Your task to perform on an android device: toggle location history Image 0: 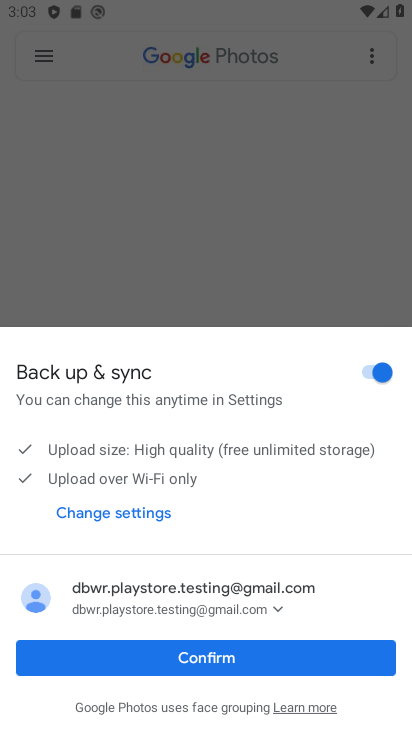
Step 0: press home button
Your task to perform on an android device: toggle location history Image 1: 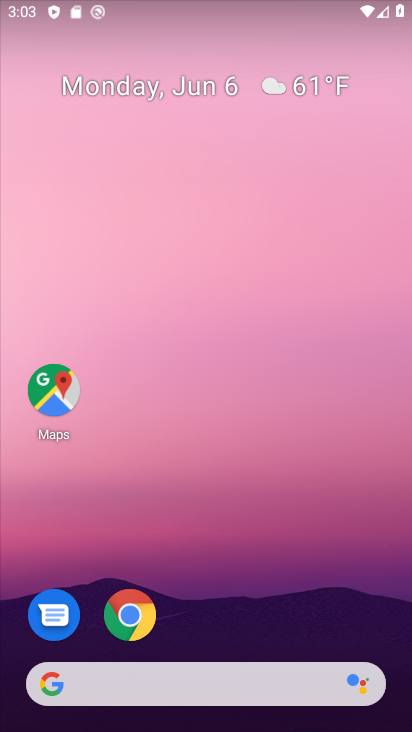
Step 1: drag from (197, 651) to (398, 337)
Your task to perform on an android device: toggle location history Image 2: 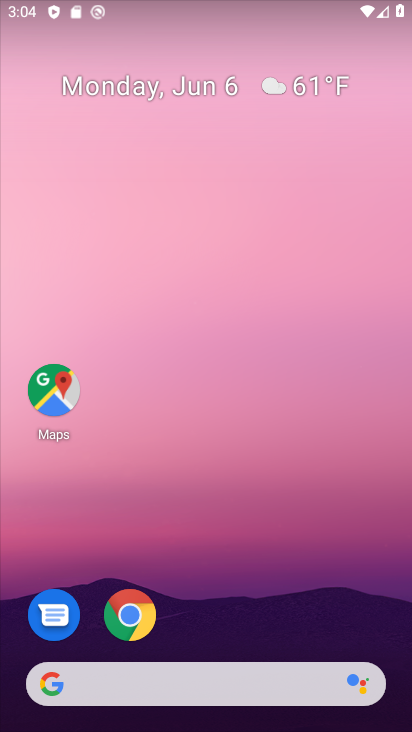
Step 2: drag from (138, 679) to (185, 6)
Your task to perform on an android device: toggle location history Image 3: 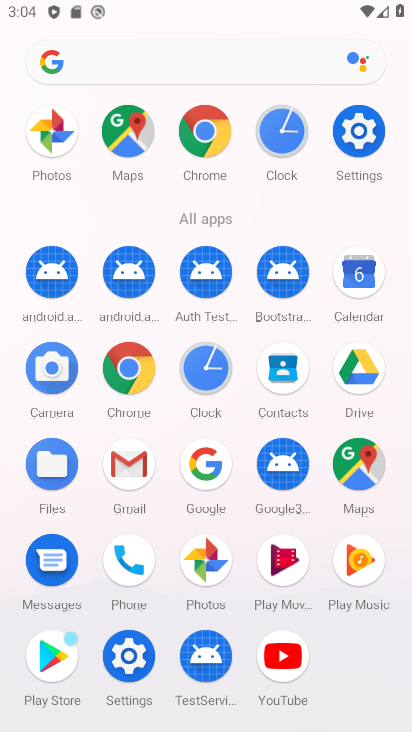
Step 3: click (134, 646)
Your task to perform on an android device: toggle location history Image 4: 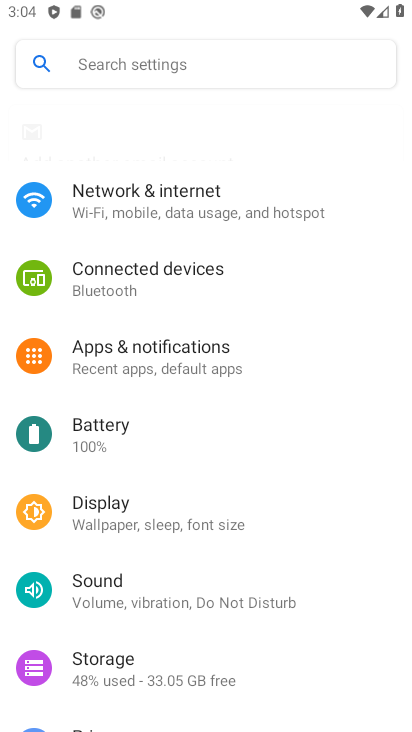
Step 4: drag from (264, 595) to (202, 34)
Your task to perform on an android device: toggle location history Image 5: 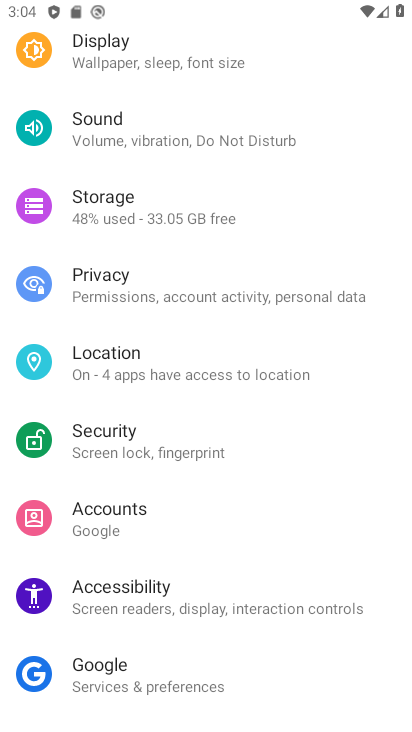
Step 5: click (106, 373)
Your task to perform on an android device: toggle location history Image 6: 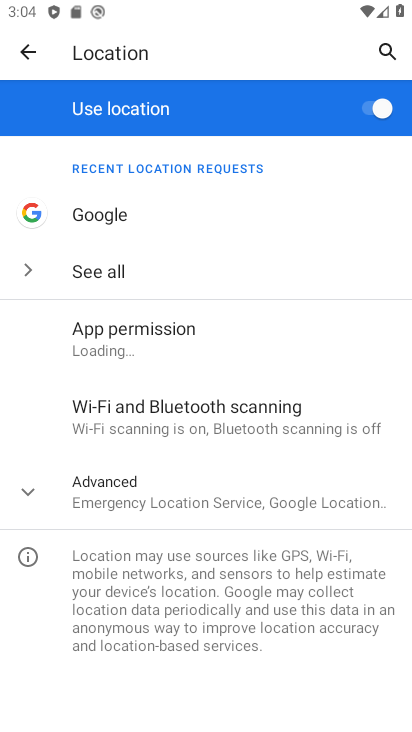
Step 6: click (221, 509)
Your task to perform on an android device: toggle location history Image 7: 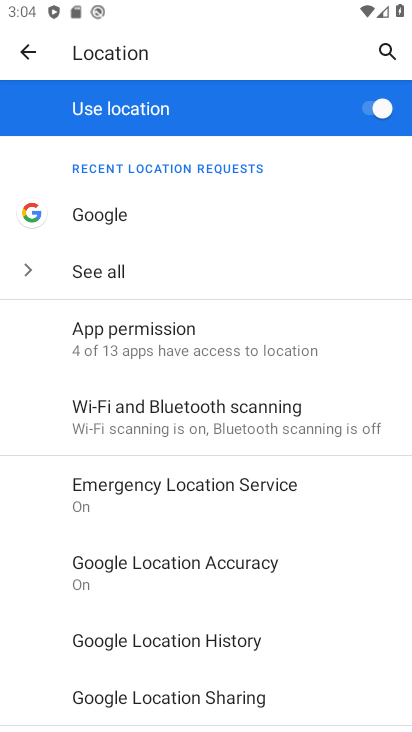
Step 7: click (159, 623)
Your task to perform on an android device: toggle location history Image 8: 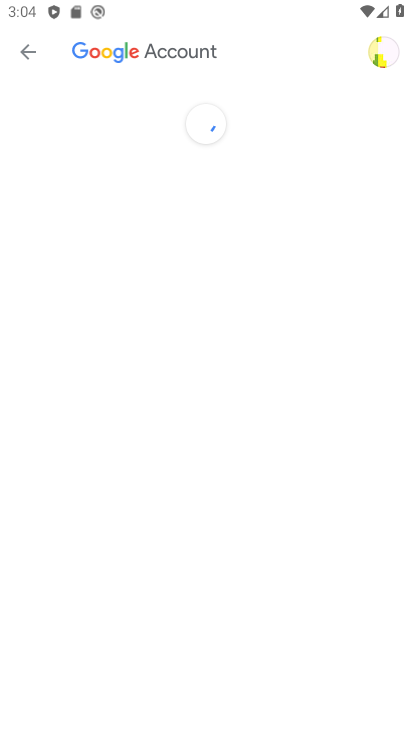
Step 8: drag from (296, 540) to (259, 42)
Your task to perform on an android device: toggle location history Image 9: 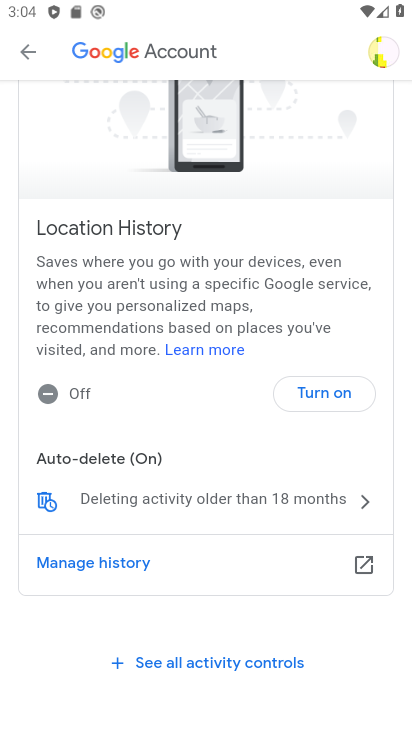
Step 9: click (311, 400)
Your task to perform on an android device: toggle location history Image 10: 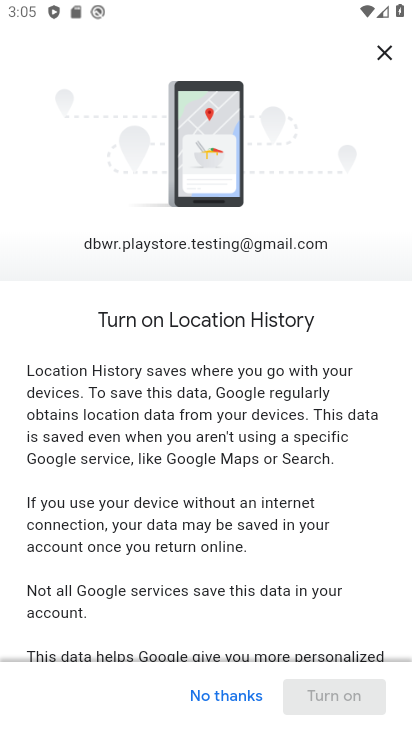
Step 10: drag from (325, 585) to (303, 5)
Your task to perform on an android device: toggle location history Image 11: 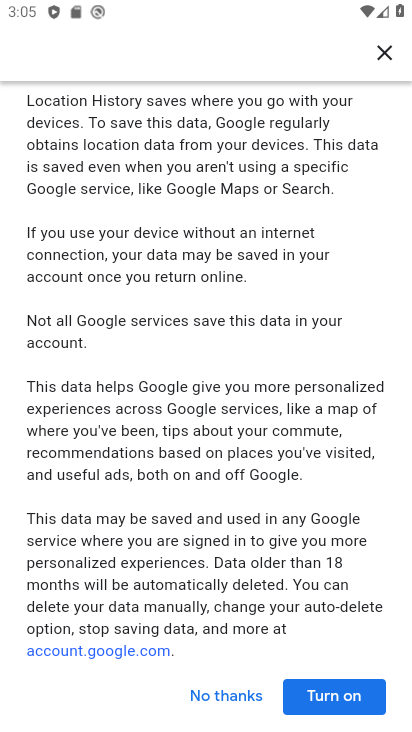
Step 11: drag from (288, 539) to (225, 88)
Your task to perform on an android device: toggle location history Image 12: 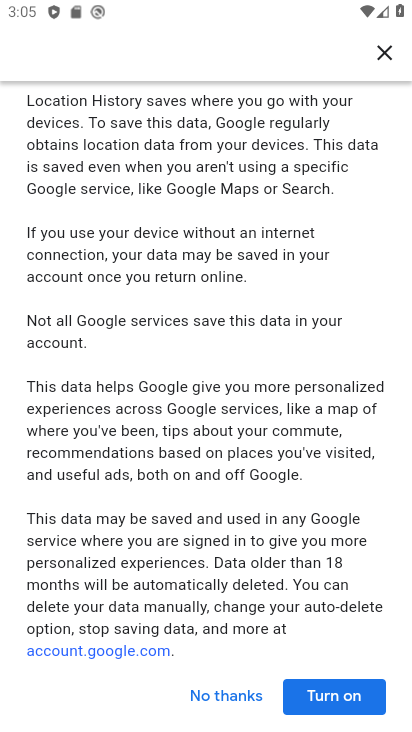
Step 12: click (317, 703)
Your task to perform on an android device: toggle location history Image 13: 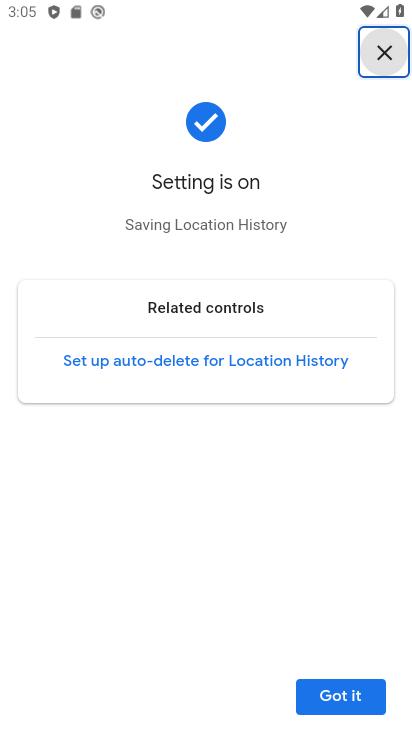
Step 13: click (364, 686)
Your task to perform on an android device: toggle location history Image 14: 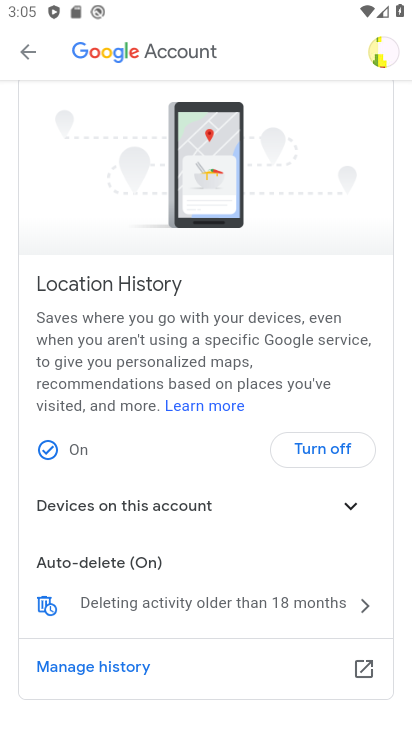
Step 14: task complete